Your task to perform on an android device: turn off improve location accuracy Image 0: 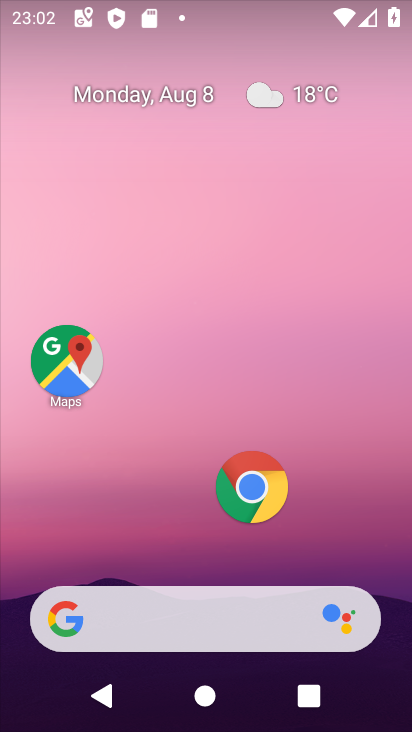
Step 0: drag from (207, 503) to (207, 171)
Your task to perform on an android device: turn off improve location accuracy Image 1: 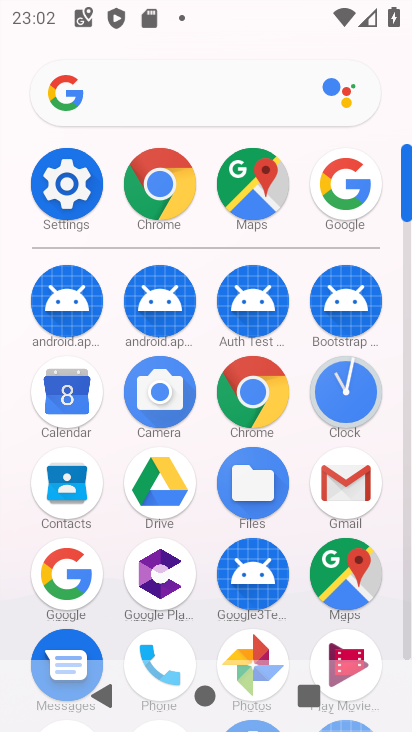
Step 1: click (67, 185)
Your task to perform on an android device: turn off improve location accuracy Image 2: 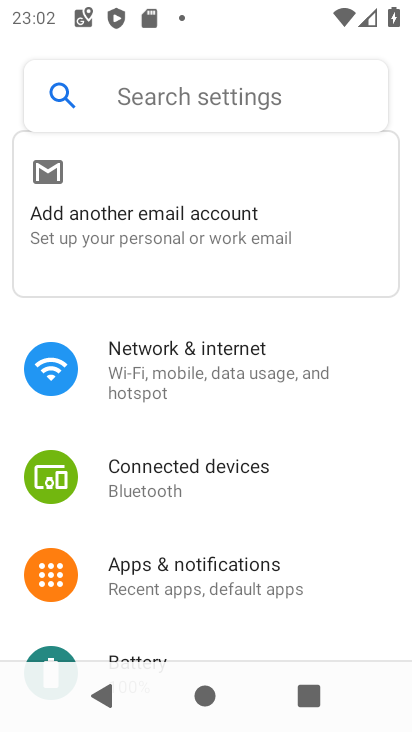
Step 2: drag from (176, 598) to (179, 320)
Your task to perform on an android device: turn off improve location accuracy Image 3: 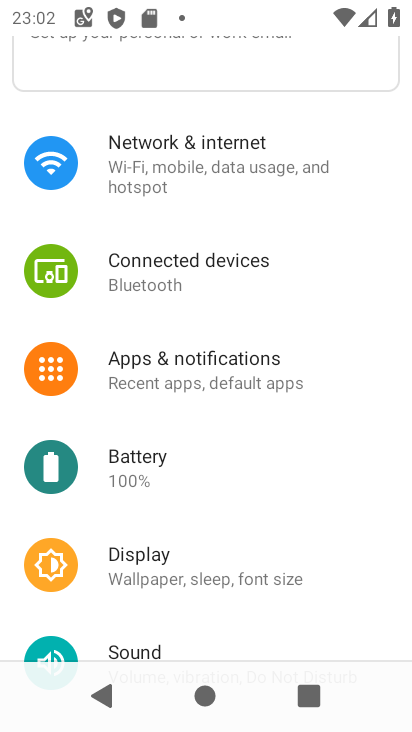
Step 3: drag from (168, 616) to (159, 309)
Your task to perform on an android device: turn off improve location accuracy Image 4: 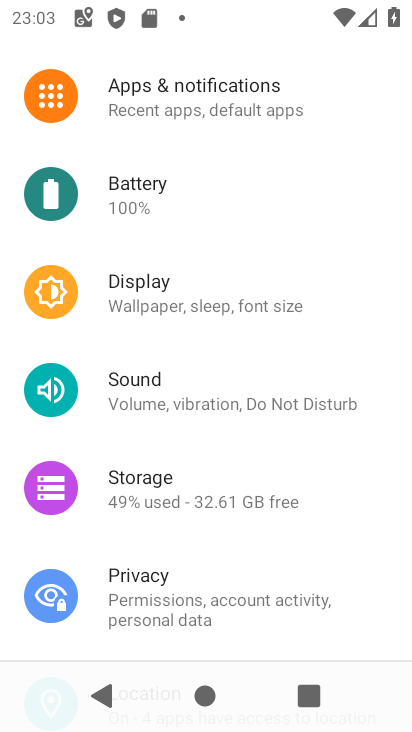
Step 4: drag from (156, 609) to (156, 336)
Your task to perform on an android device: turn off improve location accuracy Image 5: 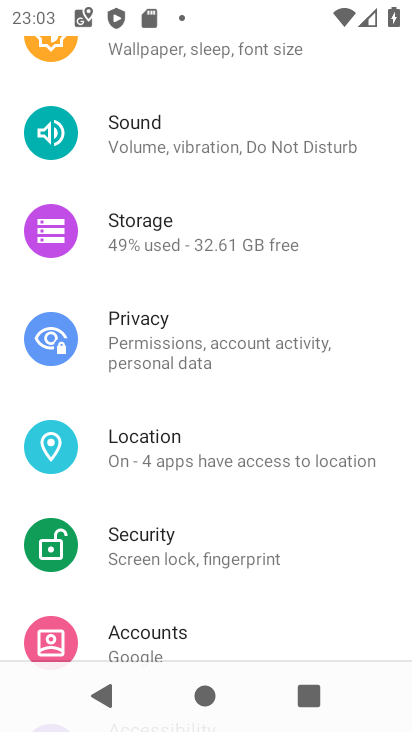
Step 5: click (145, 453)
Your task to perform on an android device: turn off improve location accuracy Image 6: 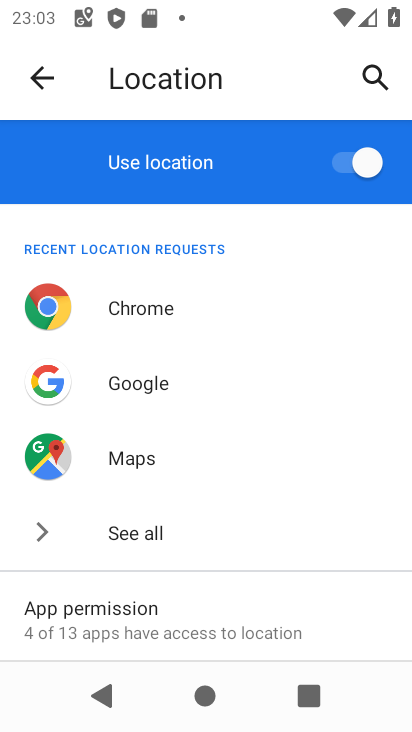
Step 6: drag from (145, 626) to (140, 369)
Your task to perform on an android device: turn off improve location accuracy Image 7: 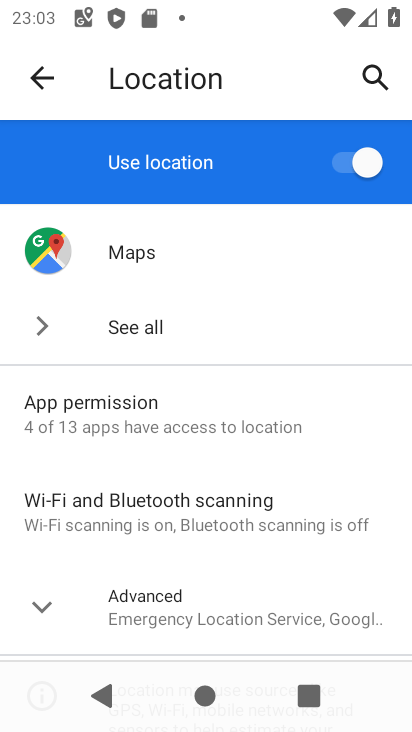
Step 7: click (169, 613)
Your task to perform on an android device: turn off improve location accuracy Image 8: 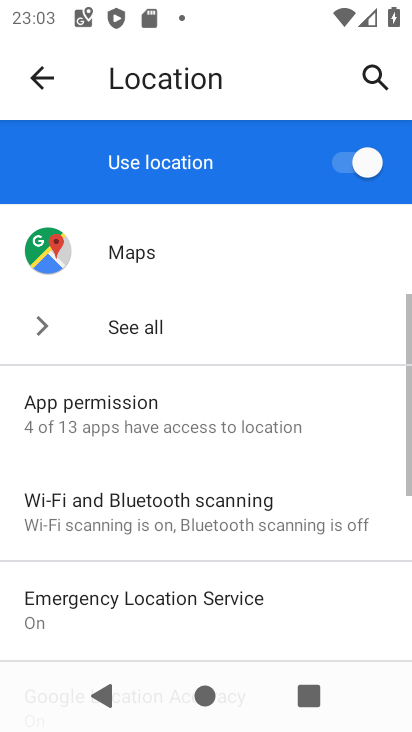
Step 8: drag from (213, 623) to (208, 490)
Your task to perform on an android device: turn off improve location accuracy Image 9: 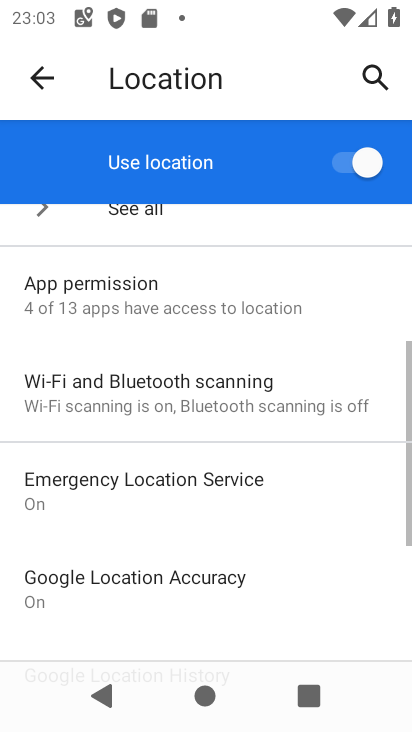
Step 9: drag from (208, 458) to (208, 409)
Your task to perform on an android device: turn off improve location accuracy Image 10: 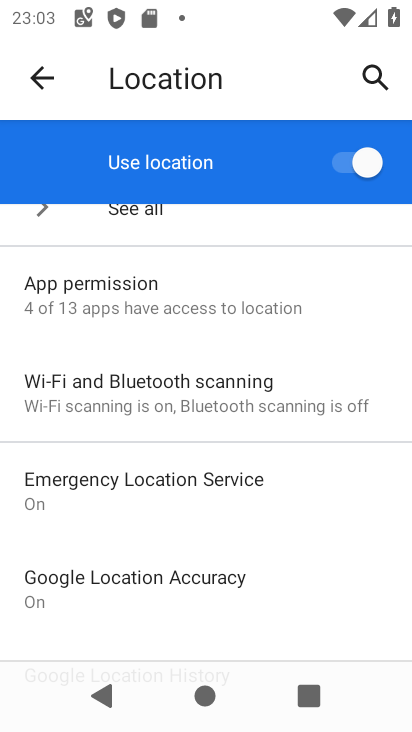
Step 10: click (169, 576)
Your task to perform on an android device: turn off improve location accuracy Image 11: 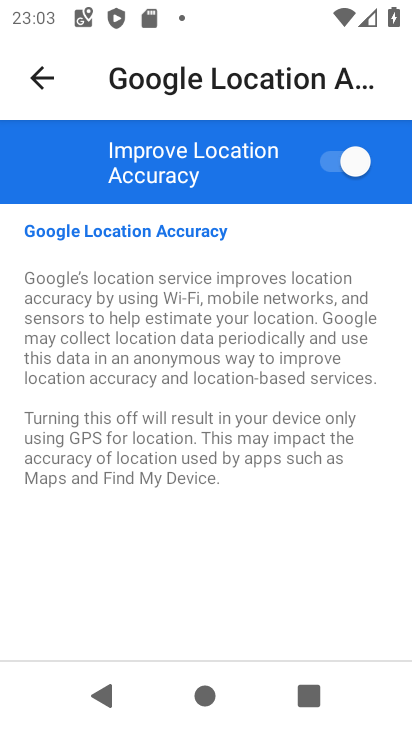
Step 11: click (348, 155)
Your task to perform on an android device: turn off improve location accuracy Image 12: 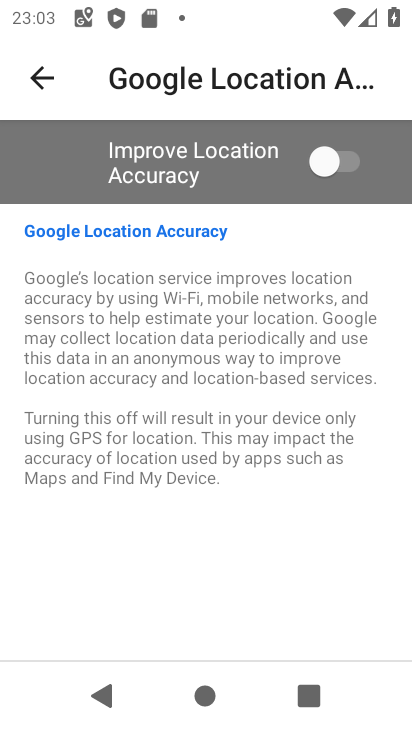
Step 12: task complete